Your task to perform on an android device: Show me the alarms in the clock app Image 0: 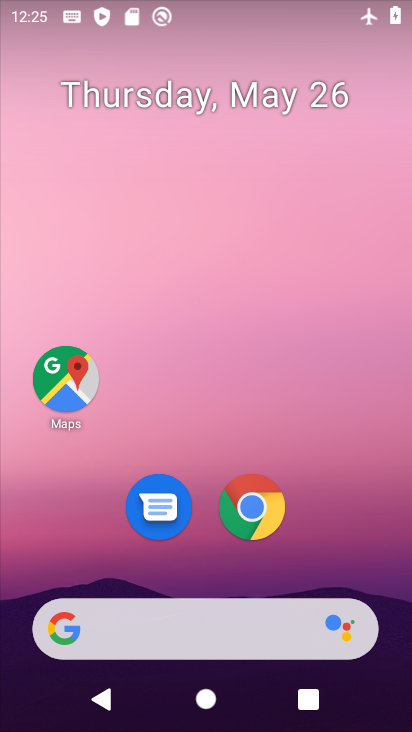
Step 0: drag from (195, 574) to (200, 208)
Your task to perform on an android device: Show me the alarms in the clock app Image 1: 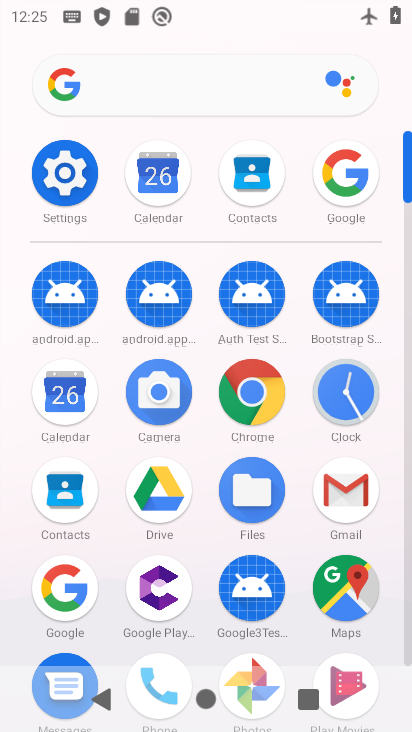
Step 1: click (323, 400)
Your task to perform on an android device: Show me the alarms in the clock app Image 2: 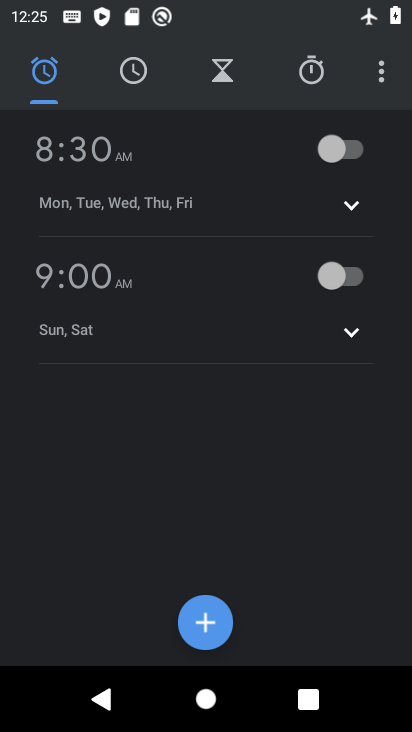
Step 2: task complete